Your task to perform on an android device: turn on data saver in the chrome app Image 0: 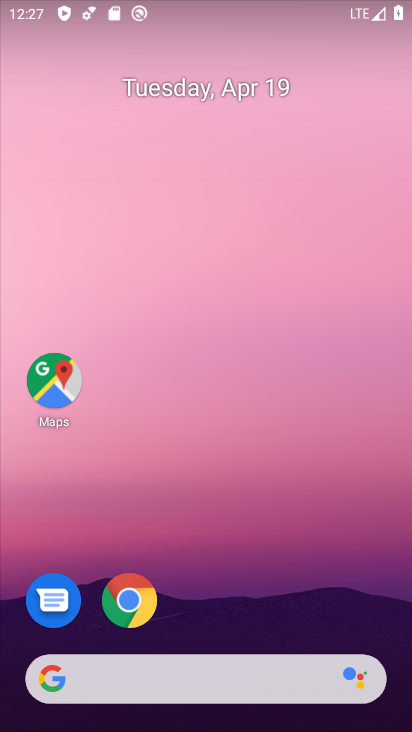
Step 0: click (123, 607)
Your task to perform on an android device: turn on data saver in the chrome app Image 1: 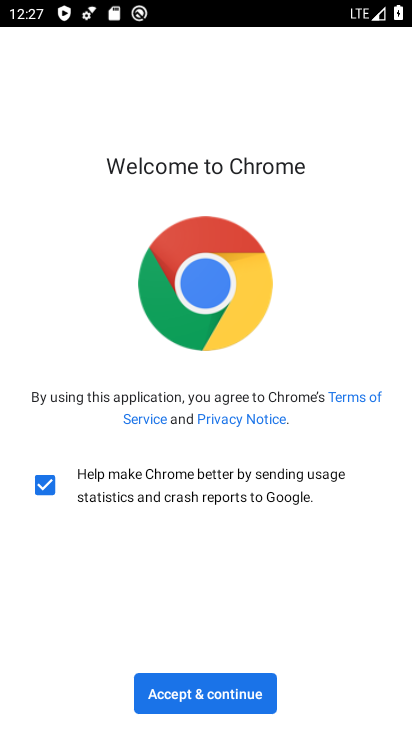
Step 1: click (228, 697)
Your task to perform on an android device: turn on data saver in the chrome app Image 2: 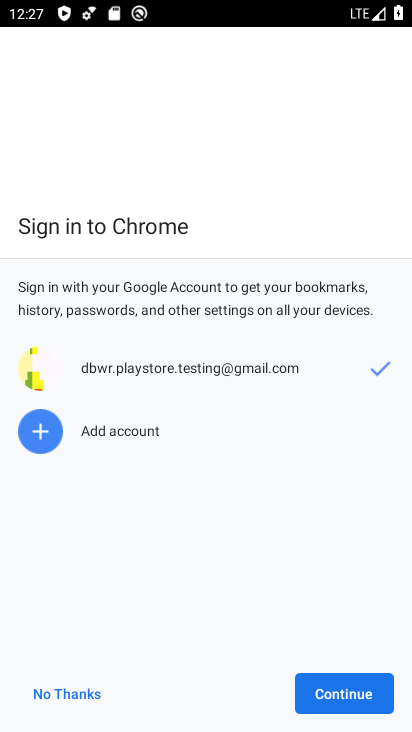
Step 2: click (332, 695)
Your task to perform on an android device: turn on data saver in the chrome app Image 3: 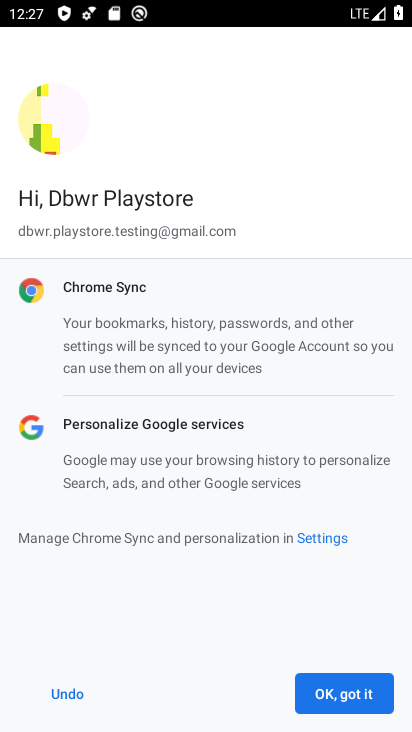
Step 3: click (333, 694)
Your task to perform on an android device: turn on data saver in the chrome app Image 4: 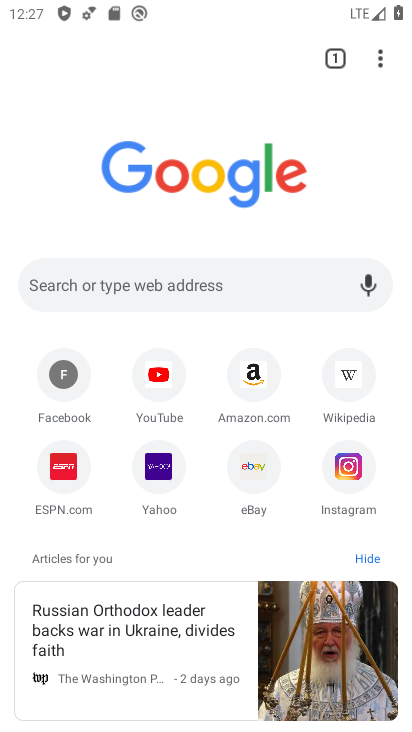
Step 4: click (370, 50)
Your task to perform on an android device: turn on data saver in the chrome app Image 5: 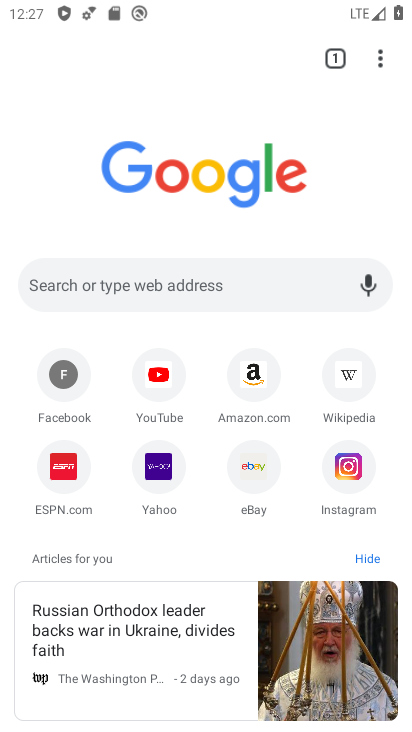
Step 5: drag from (381, 52) to (223, 489)
Your task to perform on an android device: turn on data saver in the chrome app Image 6: 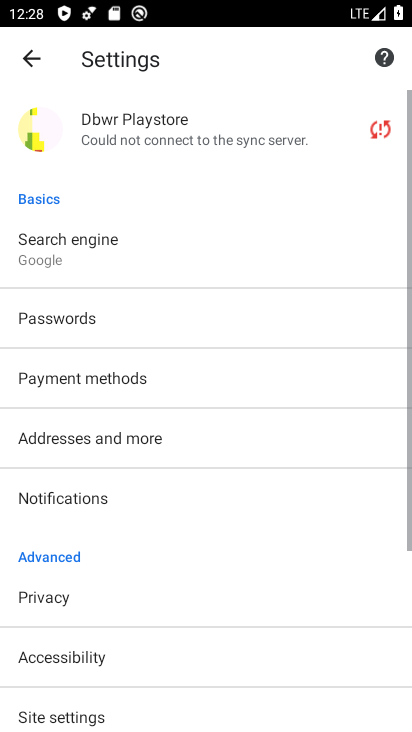
Step 6: drag from (240, 635) to (222, 99)
Your task to perform on an android device: turn on data saver in the chrome app Image 7: 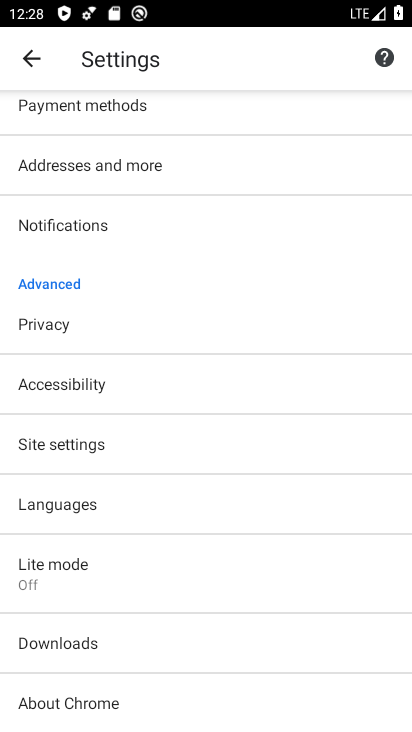
Step 7: click (104, 567)
Your task to perform on an android device: turn on data saver in the chrome app Image 8: 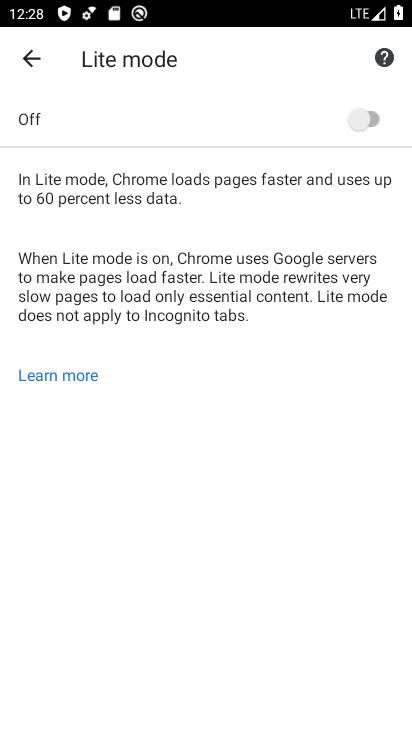
Step 8: click (326, 124)
Your task to perform on an android device: turn on data saver in the chrome app Image 9: 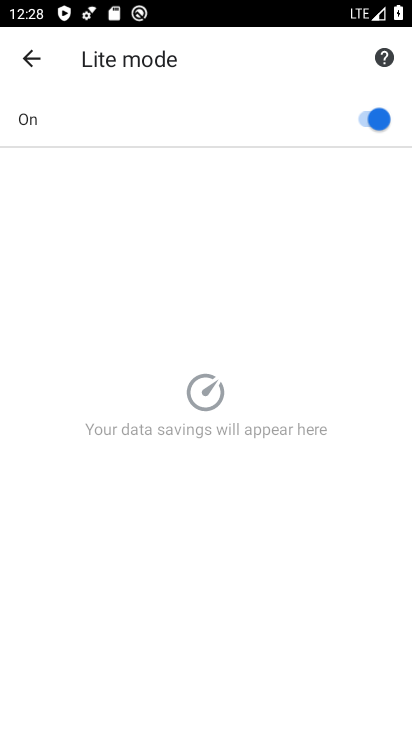
Step 9: task complete